Your task to perform on an android device: Go to CNN.com Image 0: 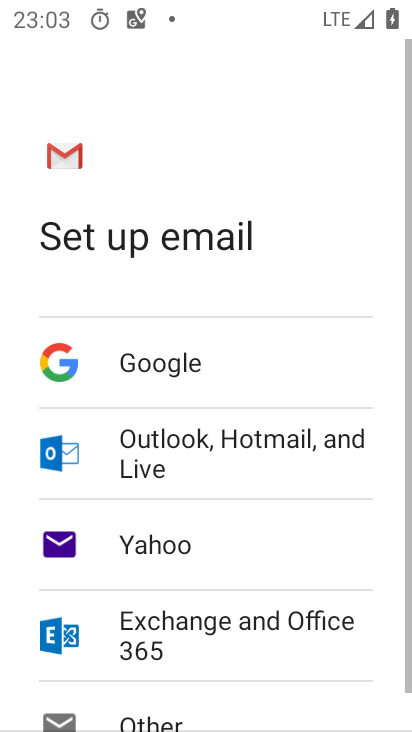
Step 0: press home button
Your task to perform on an android device: Go to CNN.com Image 1: 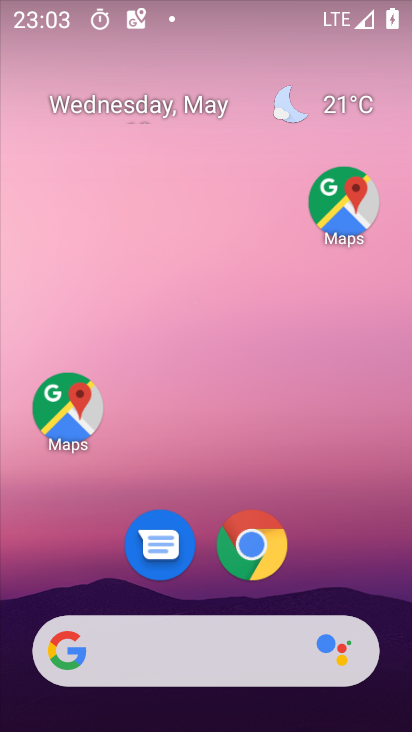
Step 1: click (248, 542)
Your task to perform on an android device: Go to CNN.com Image 2: 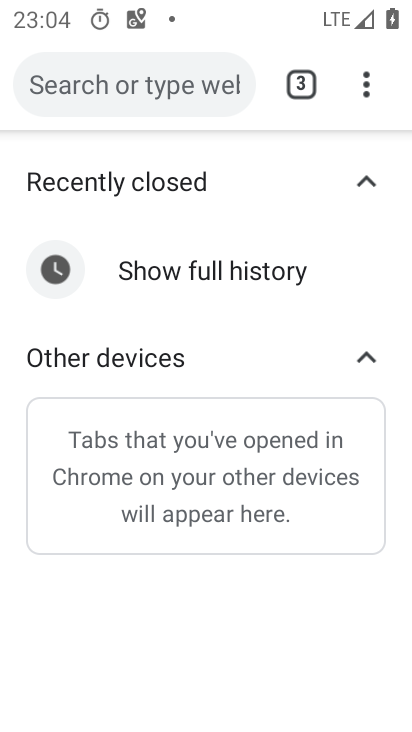
Step 2: click (175, 97)
Your task to perform on an android device: Go to CNN.com Image 3: 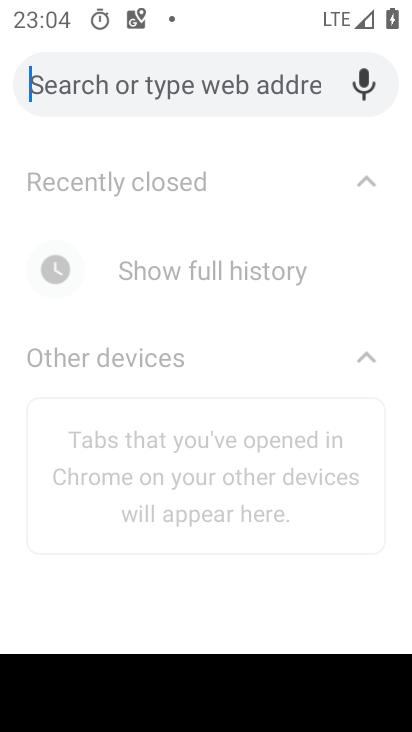
Step 3: type "CNN.com"
Your task to perform on an android device: Go to CNN.com Image 4: 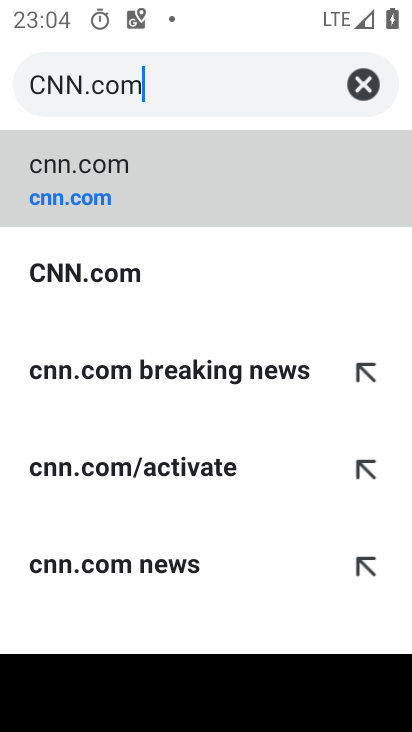
Step 4: click (50, 170)
Your task to perform on an android device: Go to CNN.com Image 5: 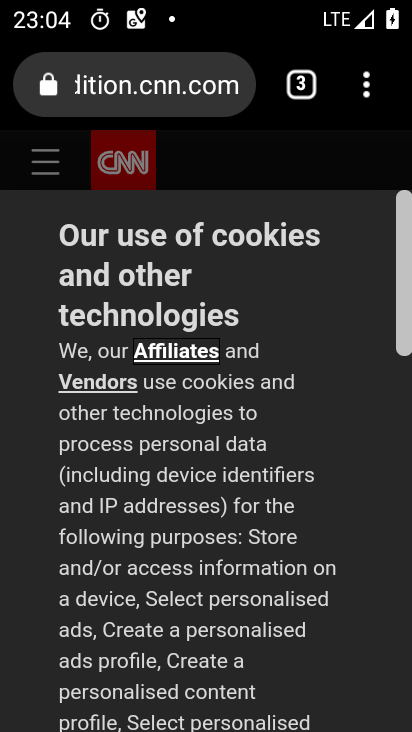
Step 5: task complete